Your task to perform on an android device: turn notification dots off Image 0: 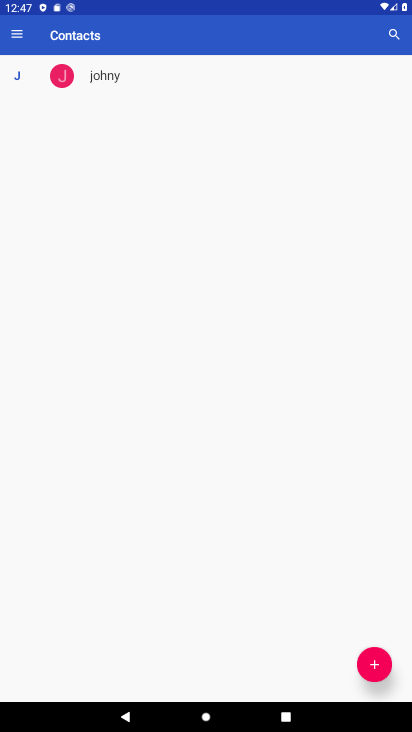
Step 0: press home button
Your task to perform on an android device: turn notification dots off Image 1: 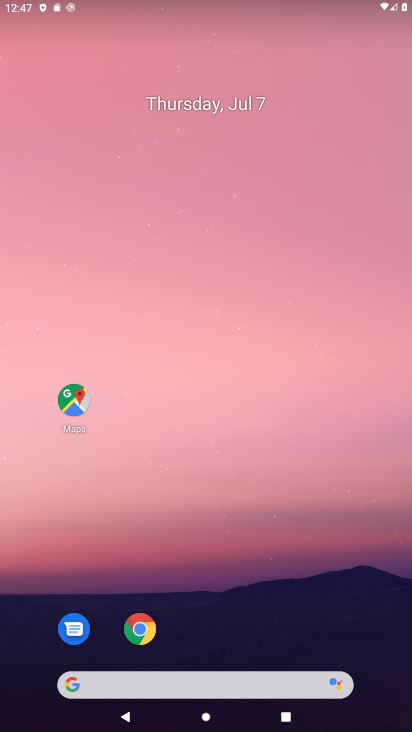
Step 1: drag from (235, 619) to (272, 100)
Your task to perform on an android device: turn notification dots off Image 2: 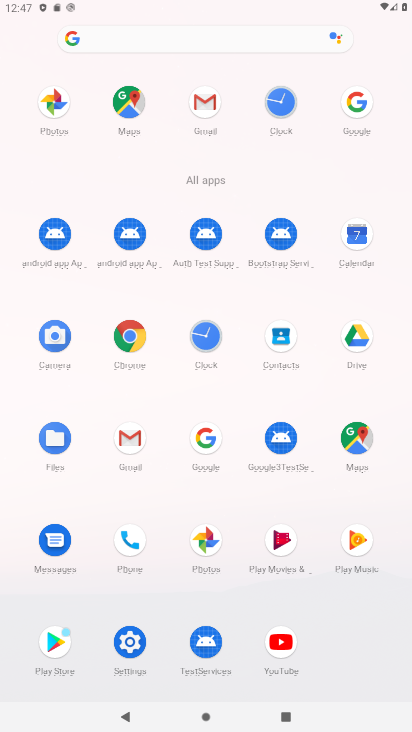
Step 2: click (127, 646)
Your task to perform on an android device: turn notification dots off Image 3: 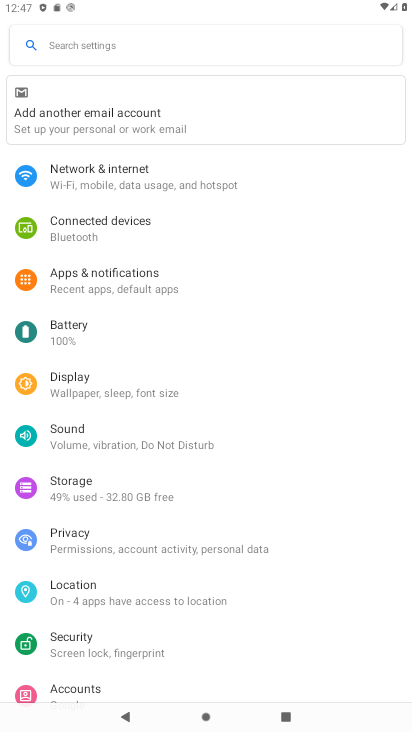
Step 3: click (137, 293)
Your task to perform on an android device: turn notification dots off Image 4: 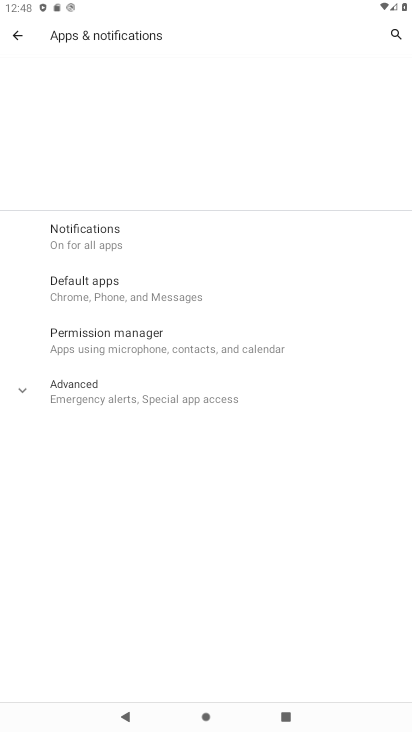
Step 4: click (125, 234)
Your task to perform on an android device: turn notification dots off Image 5: 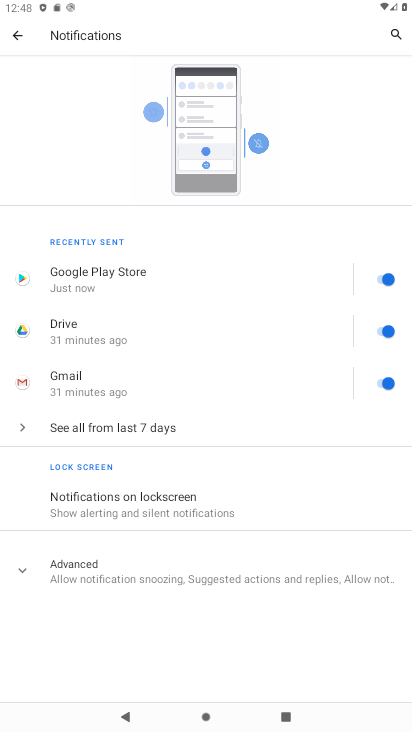
Step 5: click (87, 573)
Your task to perform on an android device: turn notification dots off Image 6: 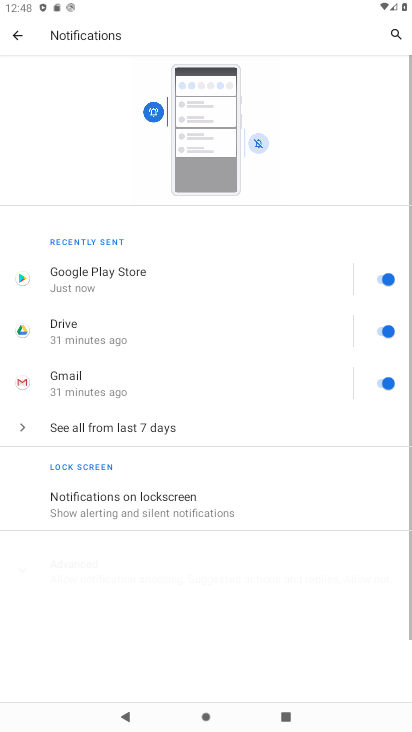
Step 6: drag from (234, 536) to (253, 313)
Your task to perform on an android device: turn notification dots off Image 7: 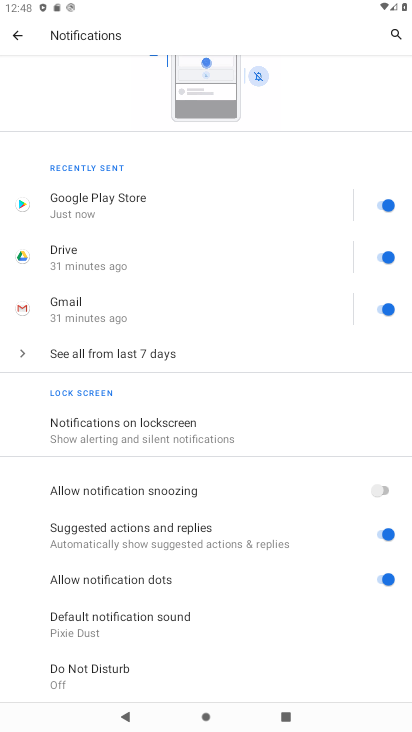
Step 7: click (383, 579)
Your task to perform on an android device: turn notification dots off Image 8: 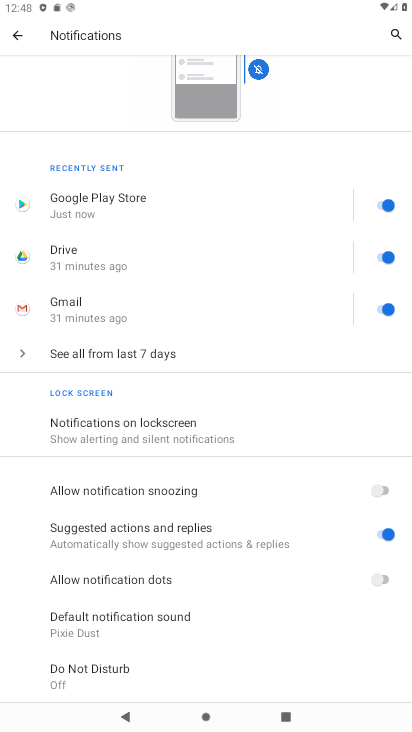
Step 8: task complete